Your task to perform on an android device: star an email in the gmail app Image 0: 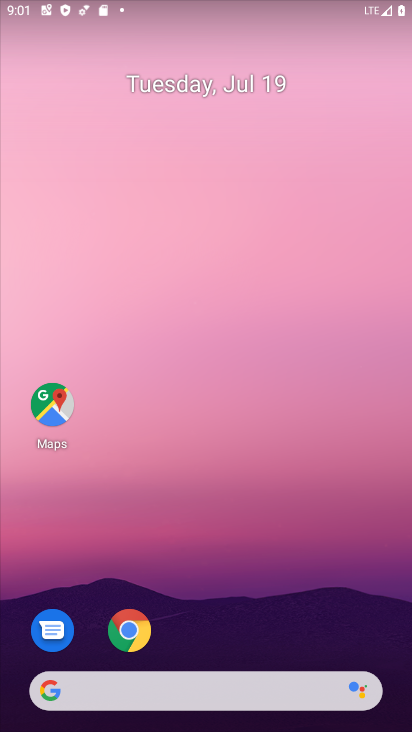
Step 0: drag from (254, 639) to (300, 90)
Your task to perform on an android device: star an email in the gmail app Image 1: 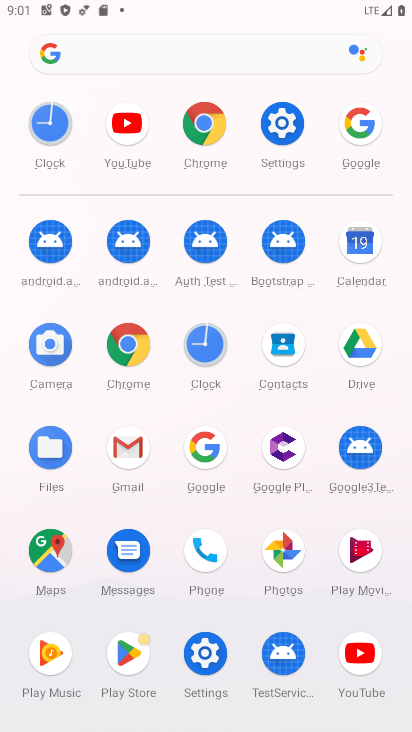
Step 1: click (126, 448)
Your task to perform on an android device: star an email in the gmail app Image 2: 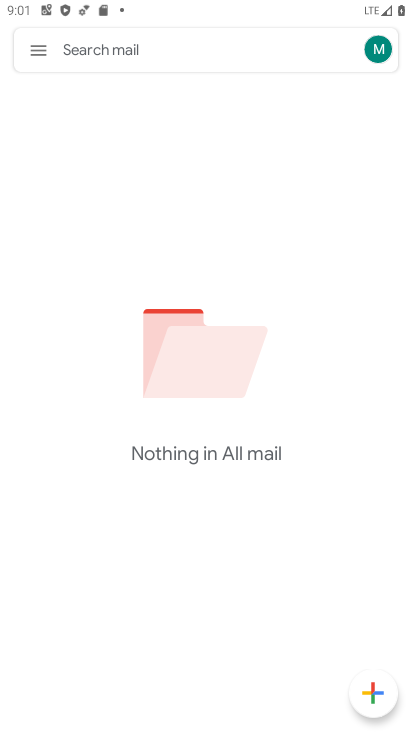
Step 2: click (40, 53)
Your task to perform on an android device: star an email in the gmail app Image 3: 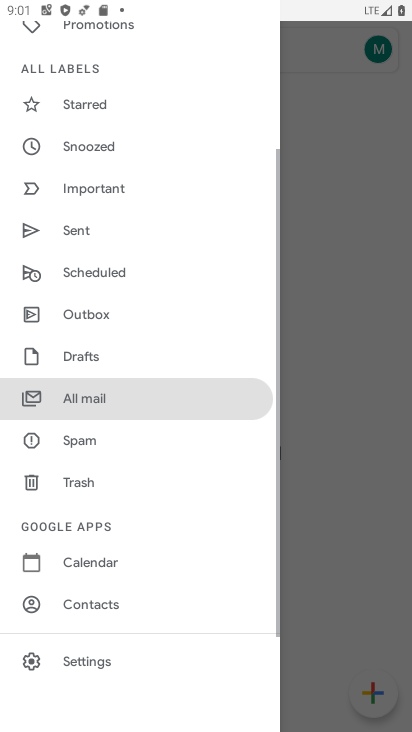
Step 3: click (307, 365)
Your task to perform on an android device: star an email in the gmail app Image 4: 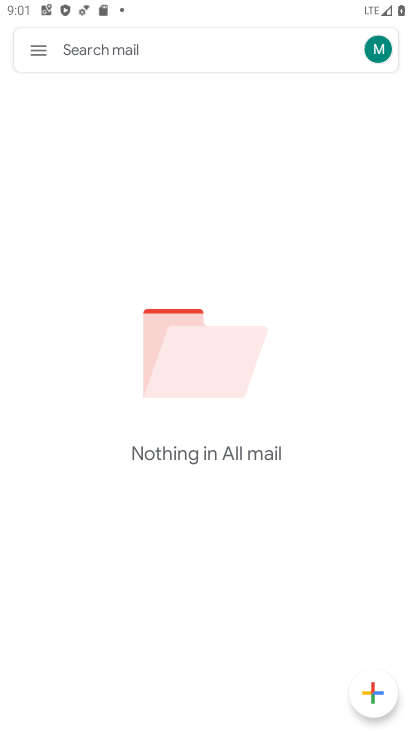
Step 4: task complete